Your task to perform on an android device: Go to privacy settings Image 0: 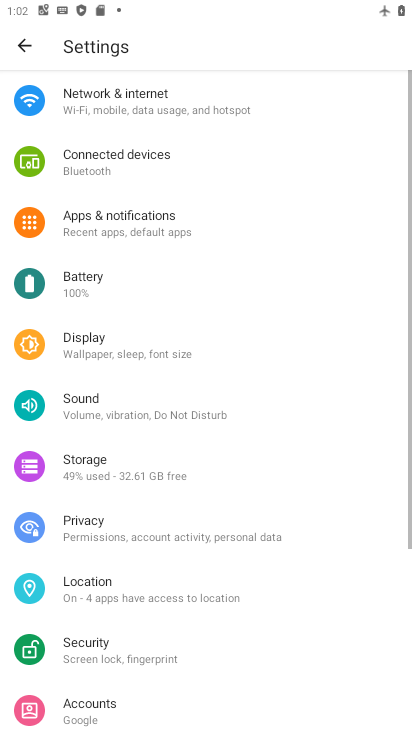
Step 0: press home button
Your task to perform on an android device: Go to privacy settings Image 1: 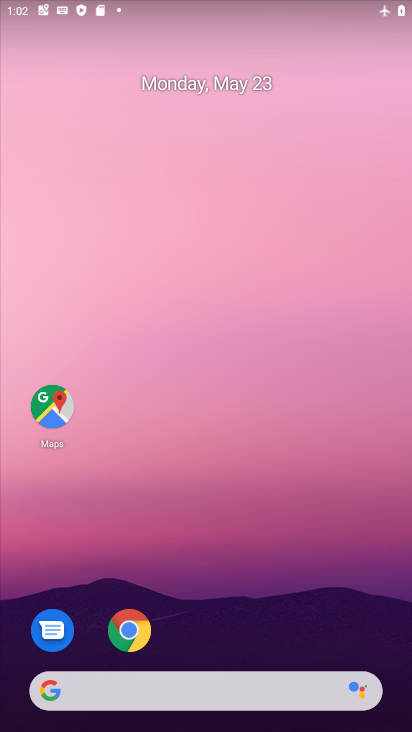
Step 1: drag from (297, 635) to (324, 132)
Your task to perform on an android device: Go to privacy settings Image 2: 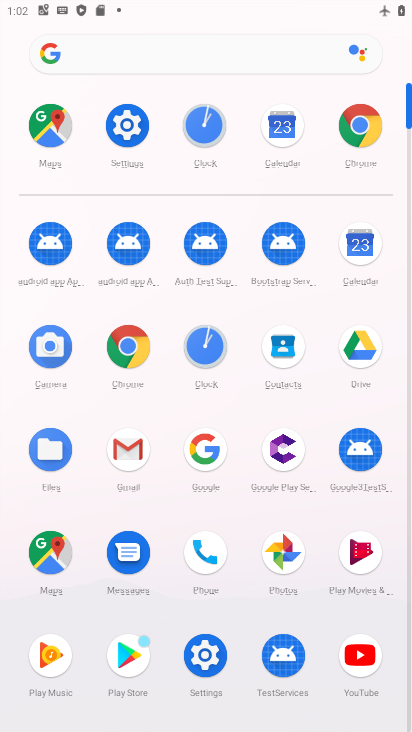
Step 2: click (194, 664)
Your task to perform on an android device: Go to privacy settings Image 3: 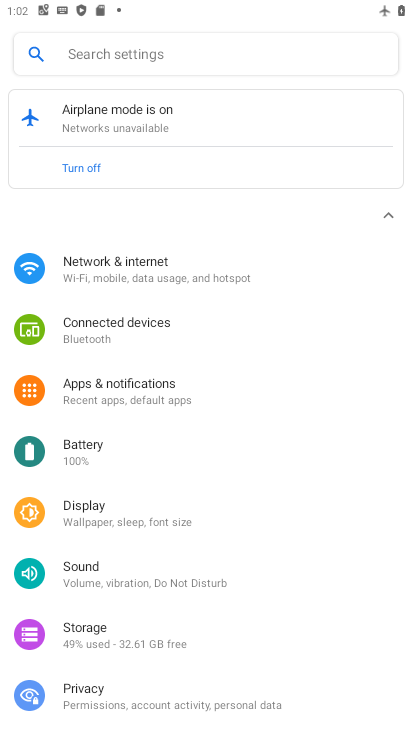
Step 3: click (126, 690)
Your task to perform on an android device: Go to privacy settings Image 4: 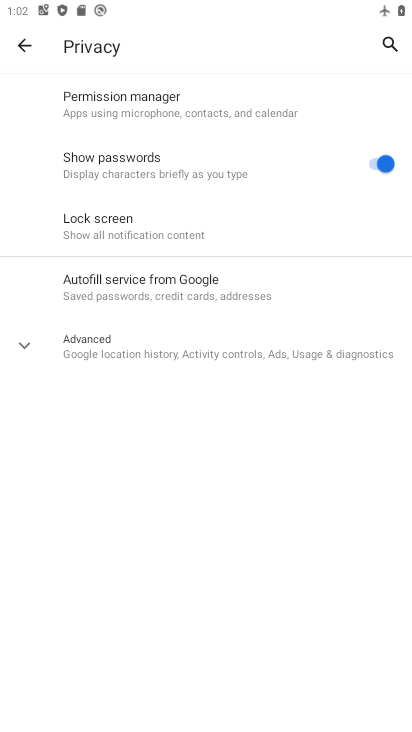
Step 4: task complete